Your task to perform on an android device: turn on sleep mode Image 0: 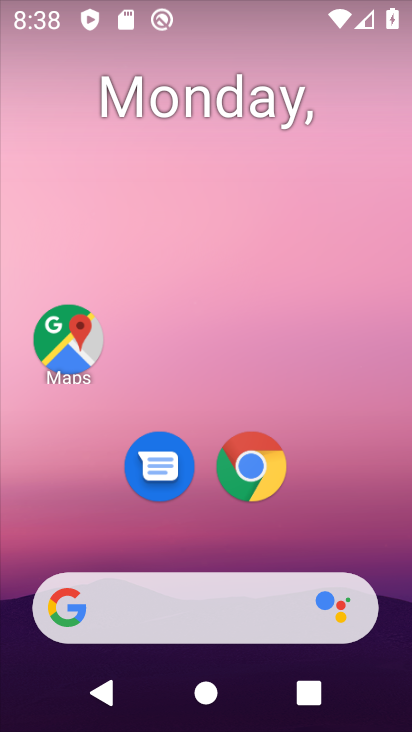
Step 0: drag from (129, 528) to (155, 0)
Your task to perform on an android device: turn on sleep mode Image 1: 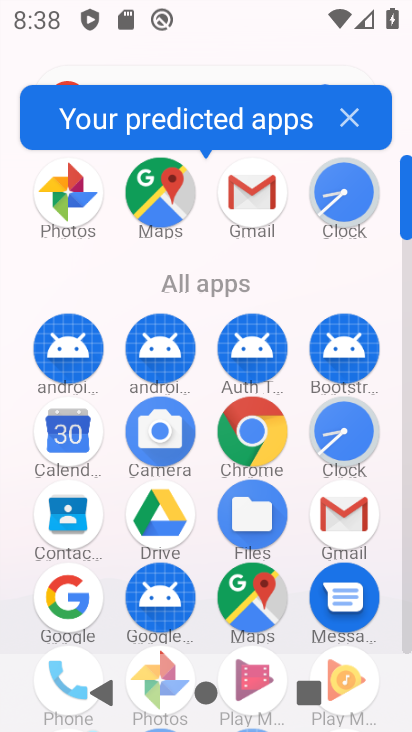
Step 1: drag from (299, 616) to (289, 335)
Your task to perform on an android device: turn on sleep mode Image 2: 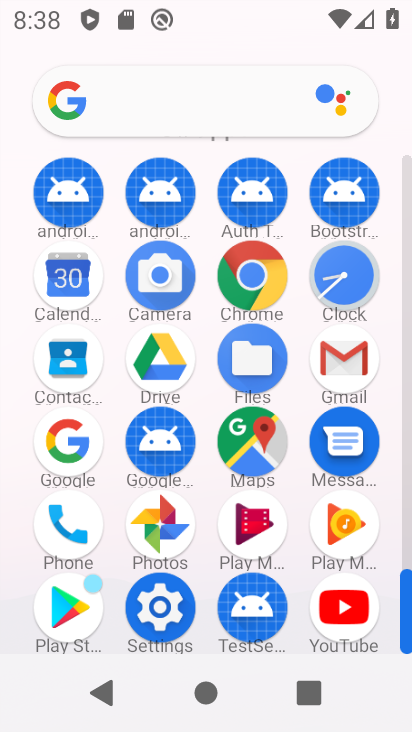
Step 2: click (171, 619)
Your task to perform on an android device: turn on sleep mode Image 3: 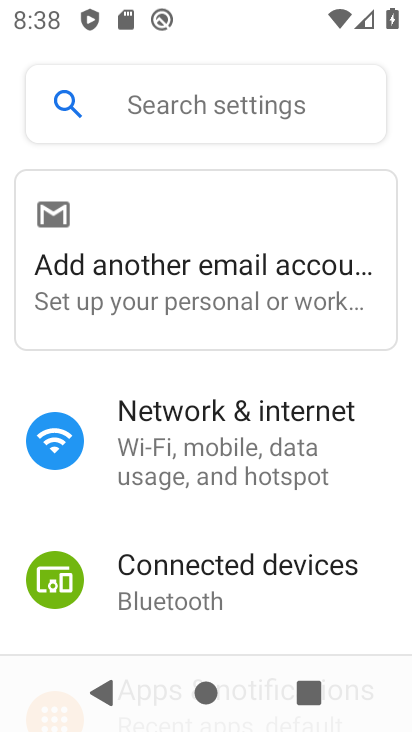
Step 3: drag from (230, 528) to (211, 110)
Your task to perform on an android device: turn on sleep mode Image 4: 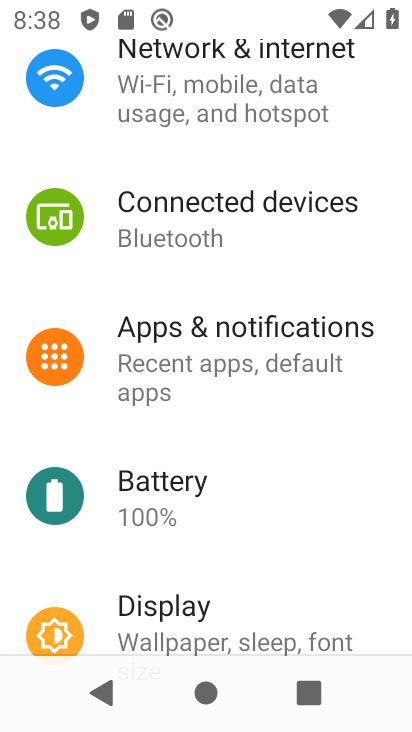
Step 4: click (254, 625)
Your task to perform on an android device: turn on sleep mode Image 5: 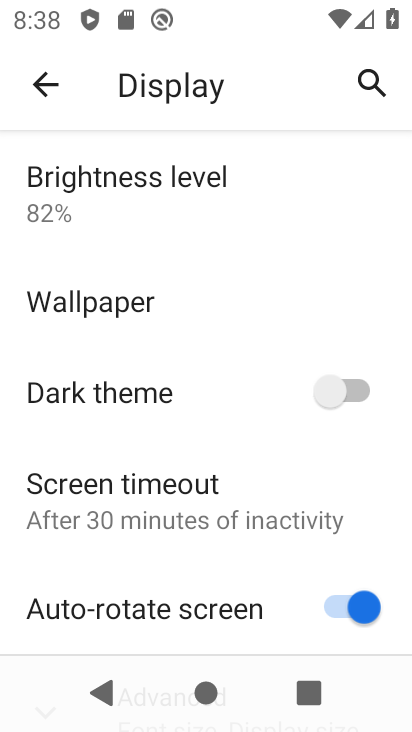
Step 5: task complete